Your task to perform on an android device: turn pop-ups on in chrome Image 0: 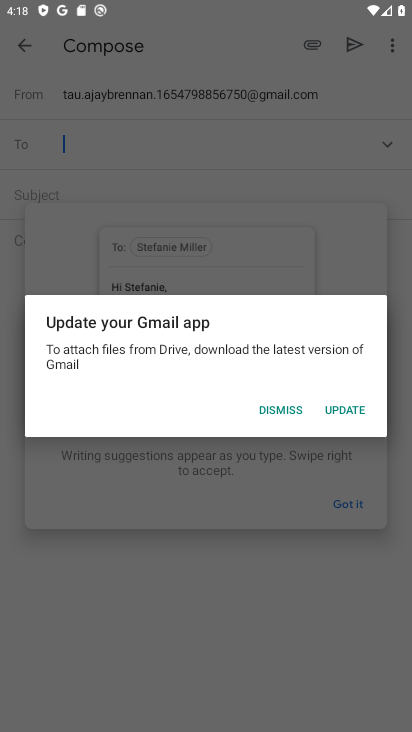
Step 0: press home button
Your task to perform on an android device: turn pop-ups on in chrome Image 1: 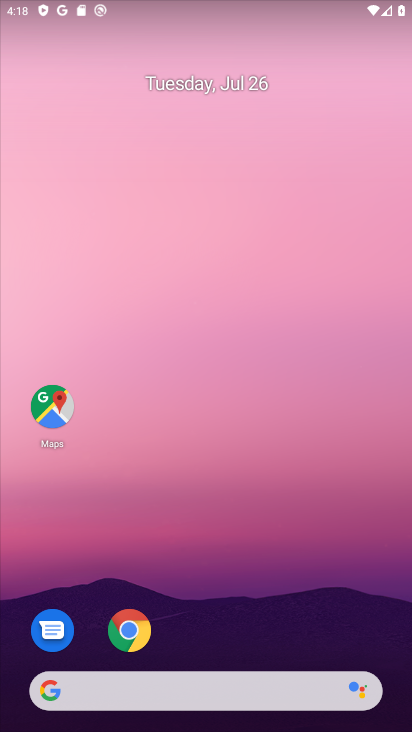
Step 1: drag from (293, 548) to (174, 71)
Your task to perform on an android device: turn pop-ups on in chrome Image 2: 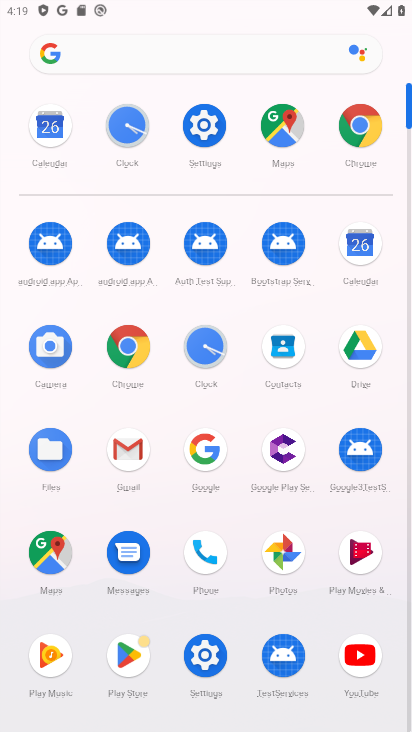
Step 2: click (359, 121)
Your task to perform on an android device: turn pop-ups on in chrome Image 3: 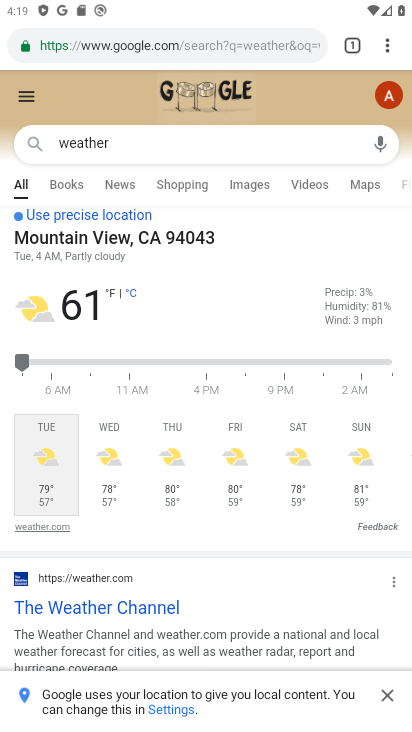
Step 3: drag from (386, 36) to (216, 521)
Your task to perform on an android device: turn pop-ups on in chrome Image 4: 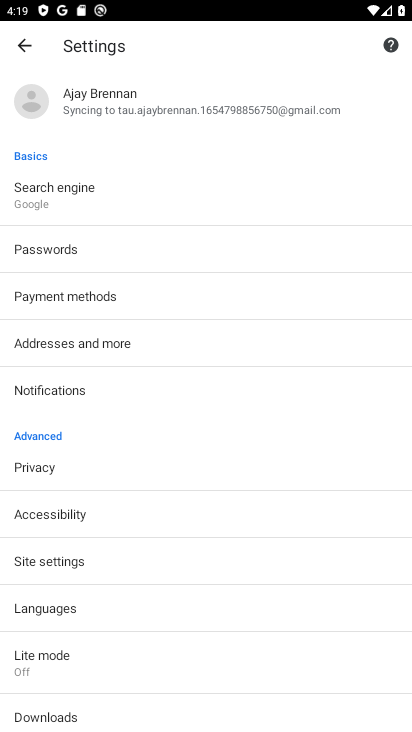
Step 4: click (96, 563)
Your task to perform on an android device: turn pop-ups on in chrome Image 5: 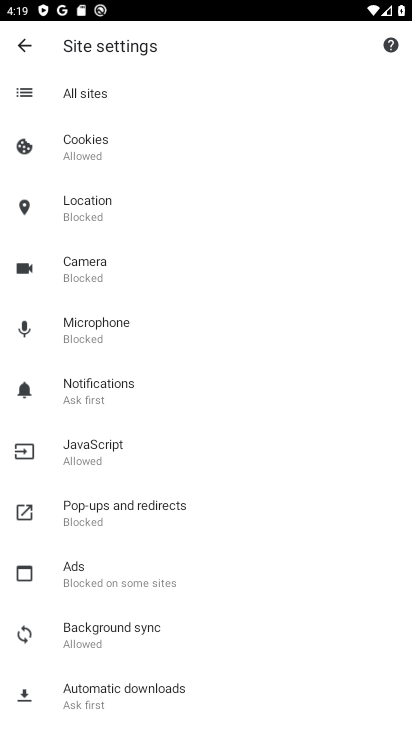
Step 5: click (134, 511)
Your task to perform on an android device: turn pop-ups on in chrome Image 6: 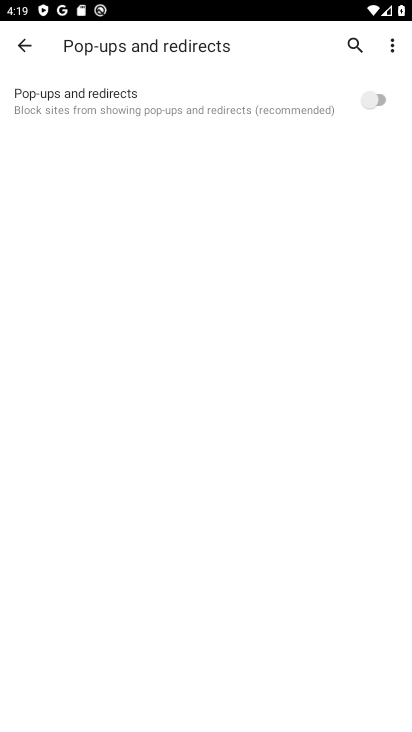
Step 6: click (357, 96)
Your task to perform on an android device: turn pop-ups on in chrome Image 7: 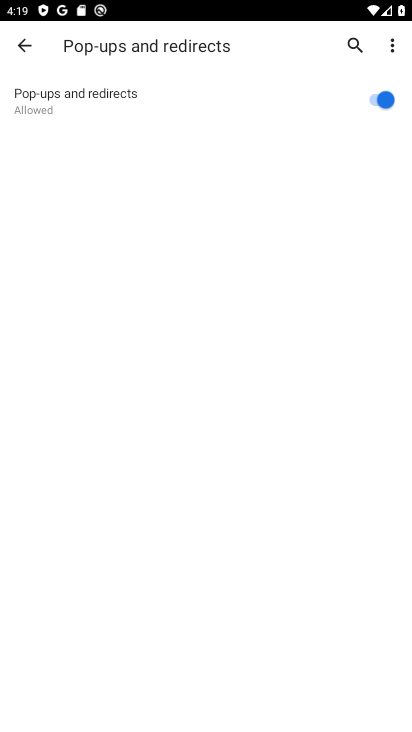
Step 7: task complete